Your task to perform on an android device: star an email in the gmail app Image 0: 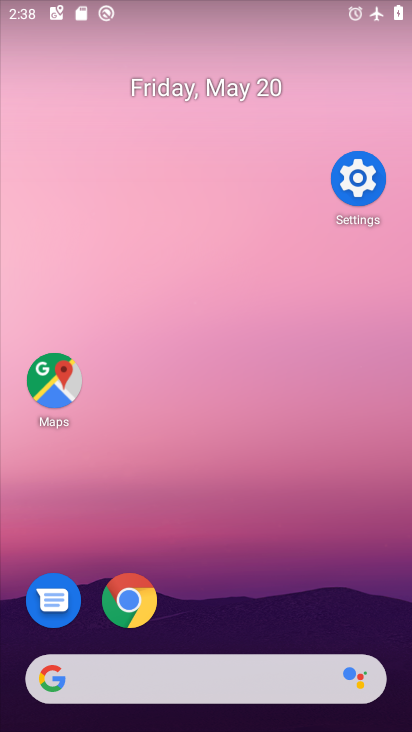
Step 0: drag from (216, 629) to (326, 3)
Your task to perform on an android device: star an email in the gmail app Image 1: 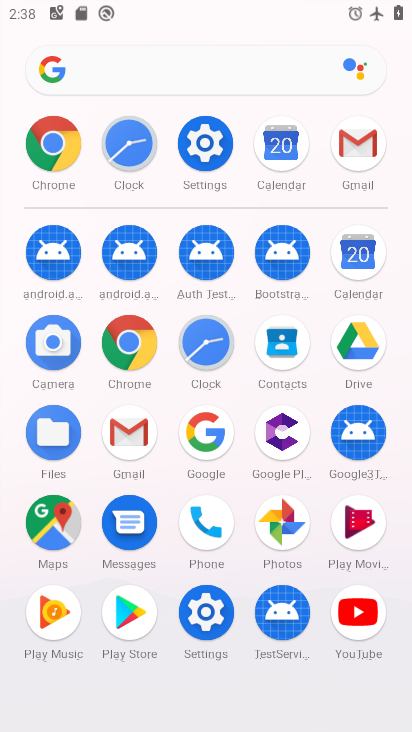
Step 1: click (130, 439)
Your task to perform on an android device: star an email in the gmail app Image 2: 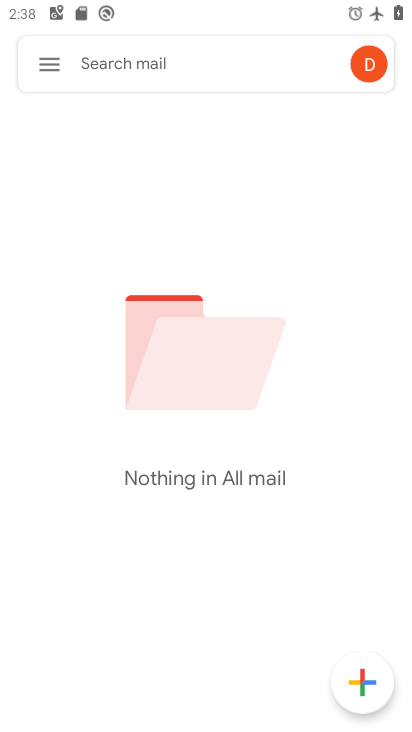
Step 2: click (59, 56)
Your task to perform on an android device: star an email in the gmail app Image 3: 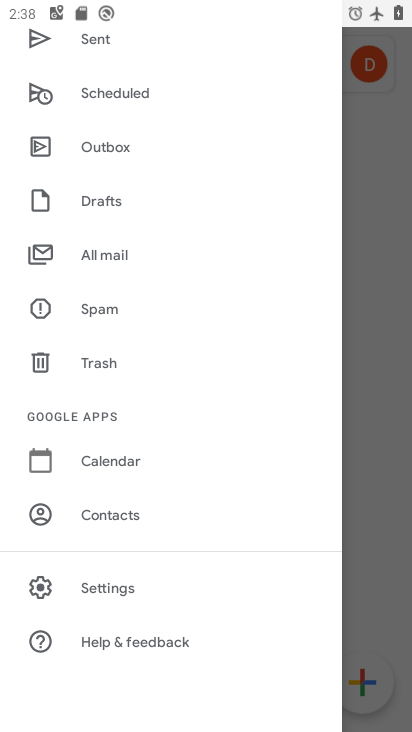
Step 3: click (112, 259)
Your task to perform on an android device: star an email in the gmail app Image 4: 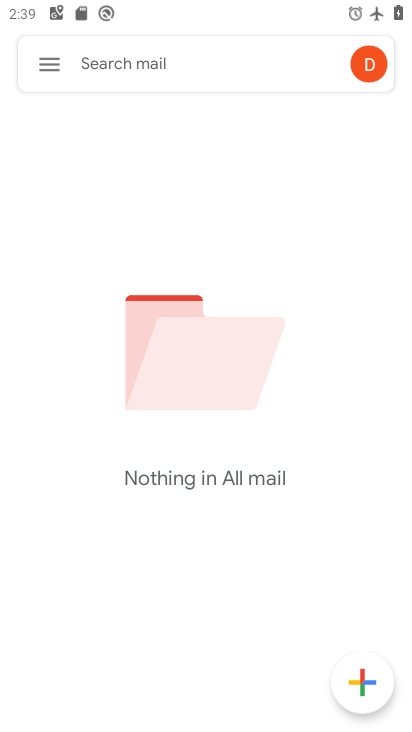
Step 4: task complete